Your task to perform on an android device: Search for seafood restaurants on Google Maps Image 0: 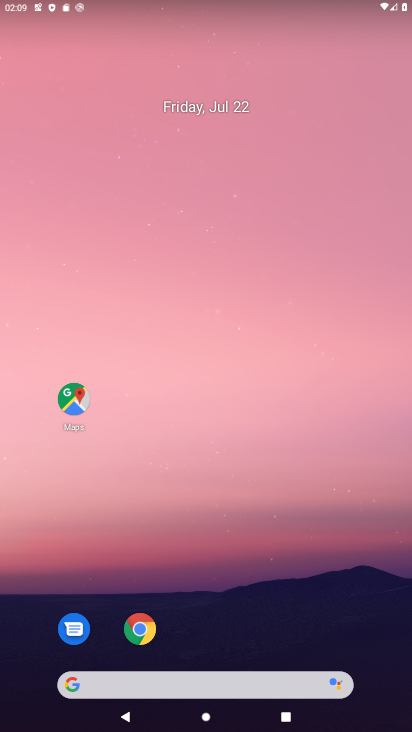
Step 0: click (69, 405)
Your task to perform on an android device: Search for seafood restaurants on Google Maps Image 1: 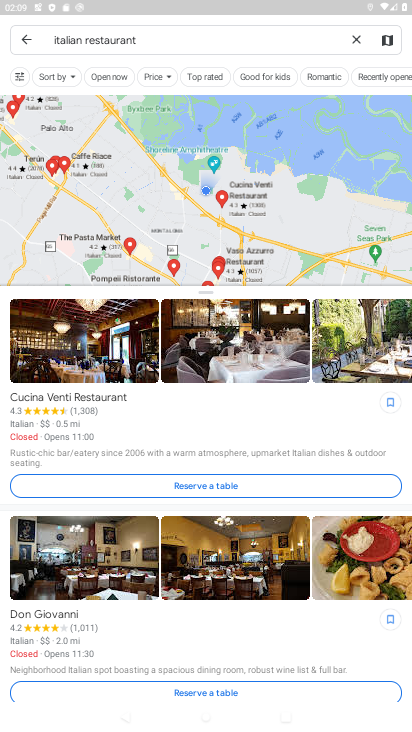
Step 1: click (353, 43)
Your task to perform on an android device: Search for seafood restaurants on Google Maps Image 2: 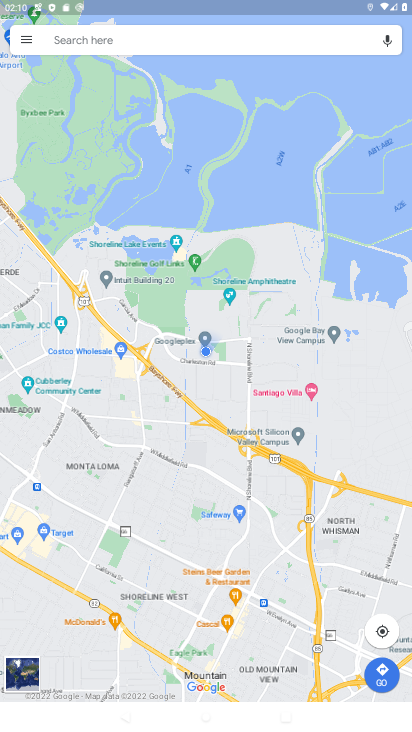
Step 2: click (158, 41)
Your task to perform on an android device: Search for seafood restaurants on Google Maps Image 3: 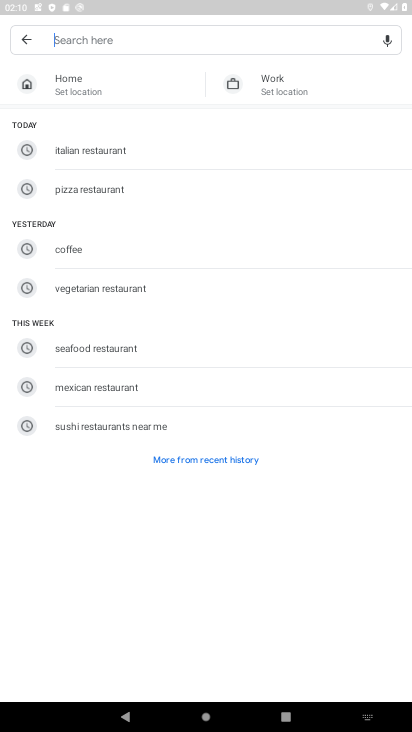
Step 3: type "seafood restaurants "
Your task to perform on an android device: Search for seafood restaurants on Google Maps Image 4: 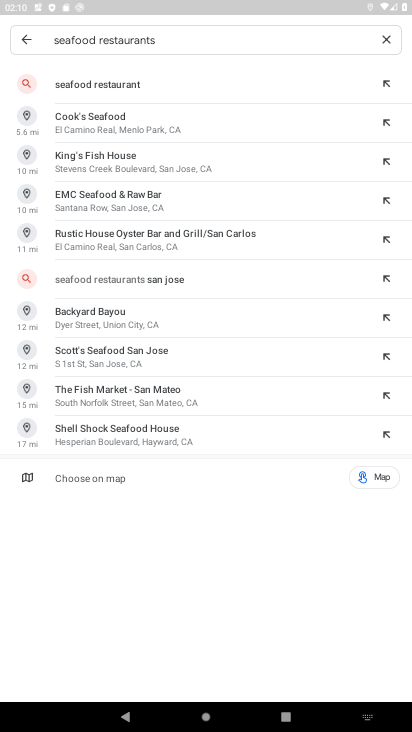
Step 4: click (120, 79)
Your task to perform on an android device: Search for seafood restaurants on Google Maps Image 5: 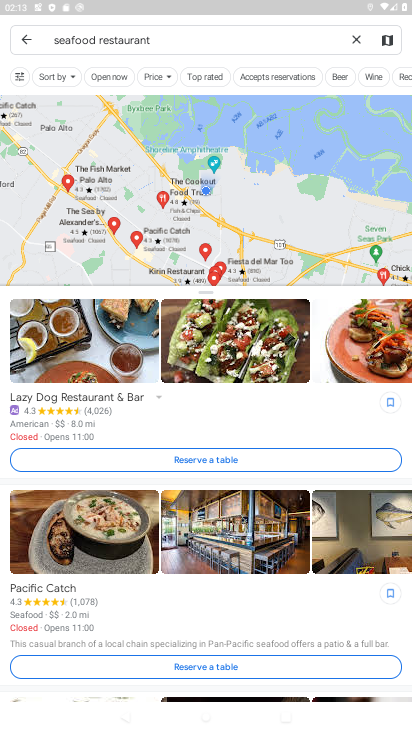
Step 5: task complete